Your task to perform on an android device: move a message to another label in the gmail app Image 0: 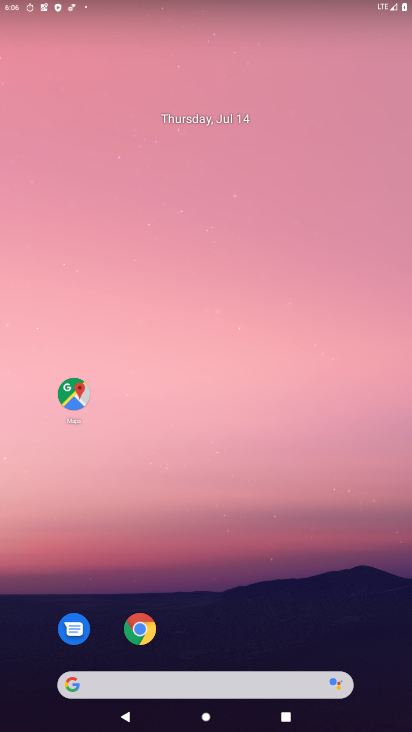
Step 0: drag from (282, 693) to (373, 139)
Your task to perform on an android device: move a message to another label in the gmail app Image 1: 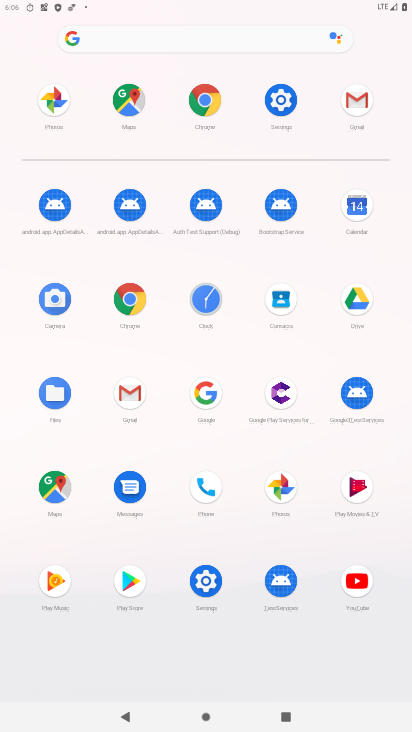
Step 1: click (141, 399)
Your task to perform on an android device: move a message to another label in the gmail app Image 2: 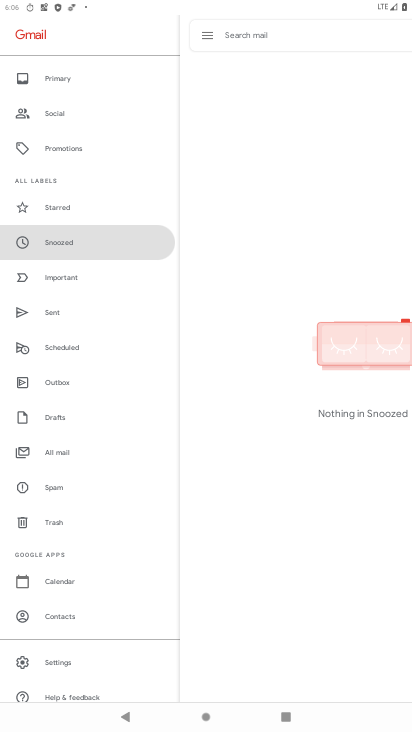
Step 2: drag from (94, 365) to (90, 645)
Your task to perform on an android device: move a message to another label in the gmail app Image 3: 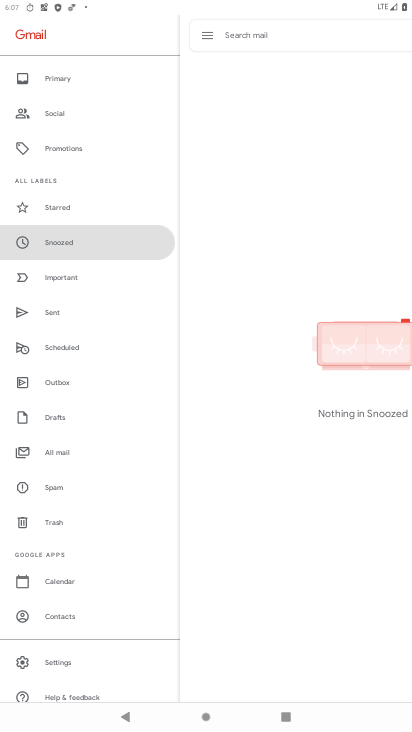
Step 3: click (59, 77)
Your task to perform on an android device: move a message to another label in the gmail app Image 4: 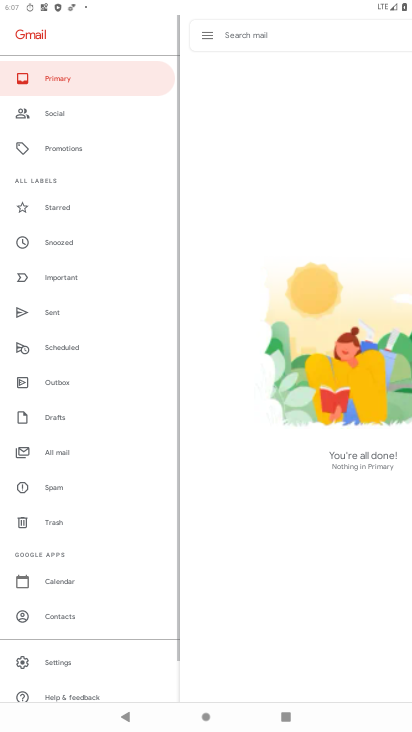
Step 4: task complete